Your task to perform on an android device: open device folders in google photos Image 0: 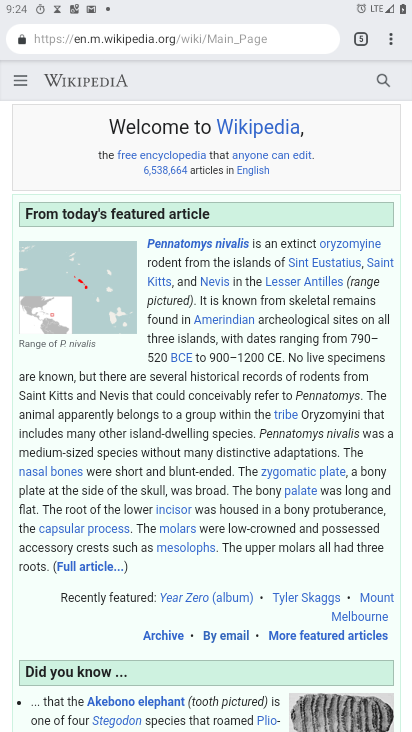
Step 0: press home button
Your task to perform on an android device: open device folders in google photos Image 1: 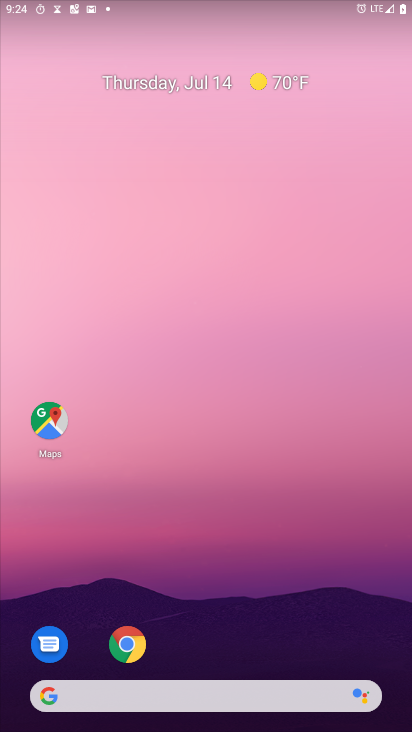
Step 1: drag from (147, 697) to (314, 96)
Your task to perform on an android device: open device folders in google photos Image 2: 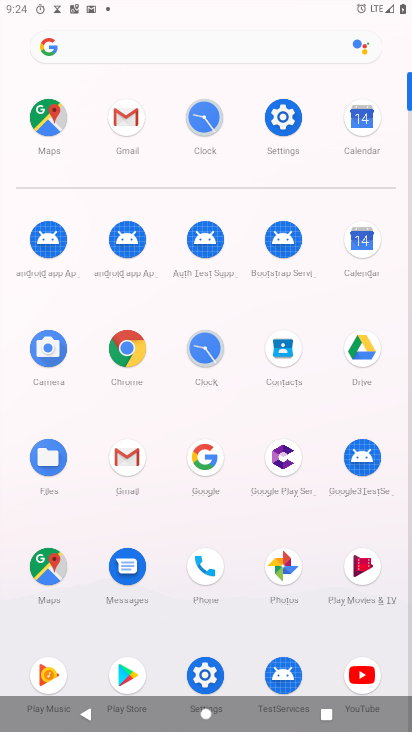
Step 2: click (280, 569)
Your task to perform on an android device: open device folders in google photos Image 3: 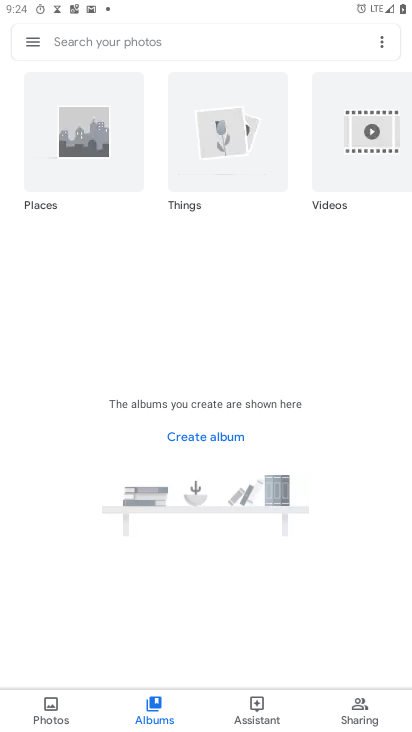
Step 3: click (32, 45)
Your task to perform on an android device: open device folders in google photos Image 4: 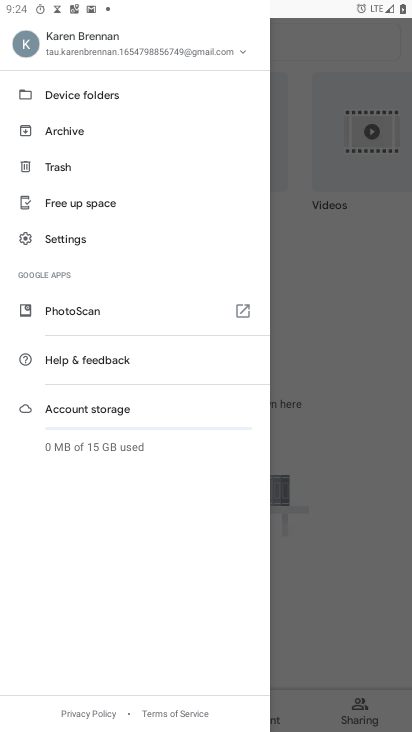
Step 4: click (67, 96)
Your task to perform on an android device: open device folders in google photos Image 5: 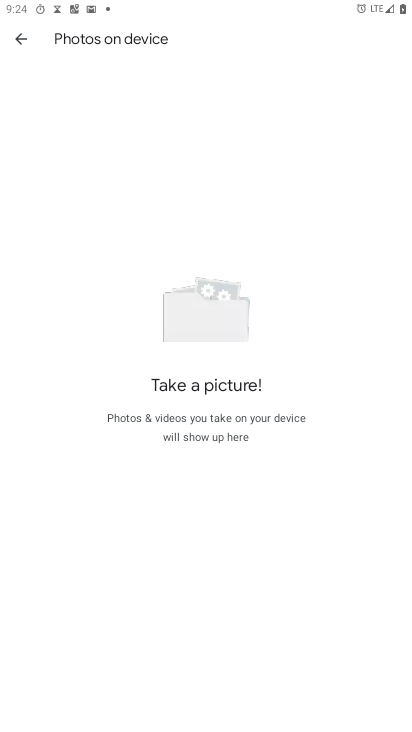
Step 5: task complete